Your task to perform on an android device: open app "Flipkart Online Shopping App" Image 0: 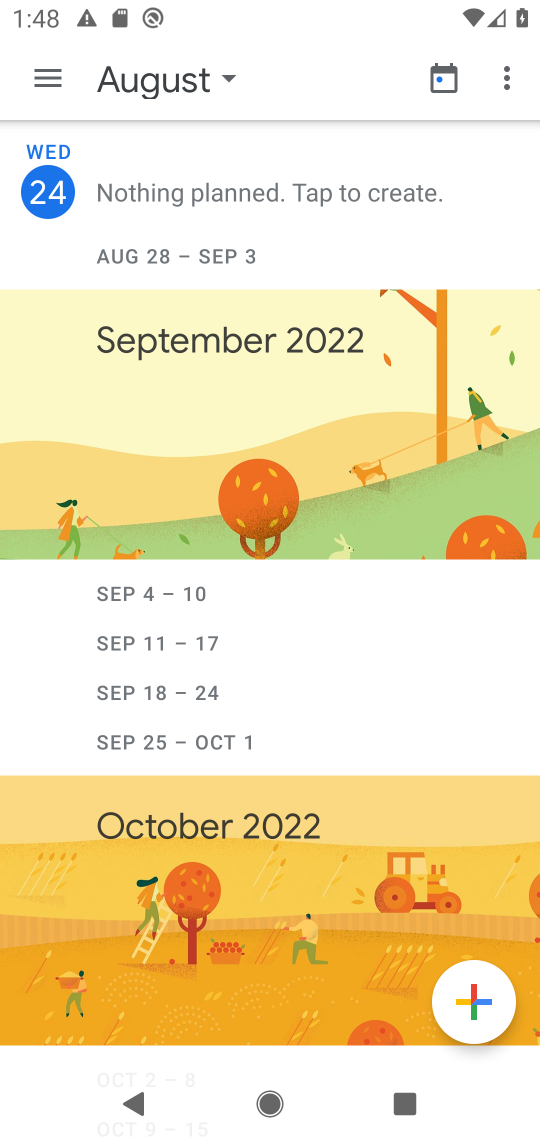
Step 0: press back button
Your task to perform on an android device: open app "Flipkart Online Shopping App" Image 1: 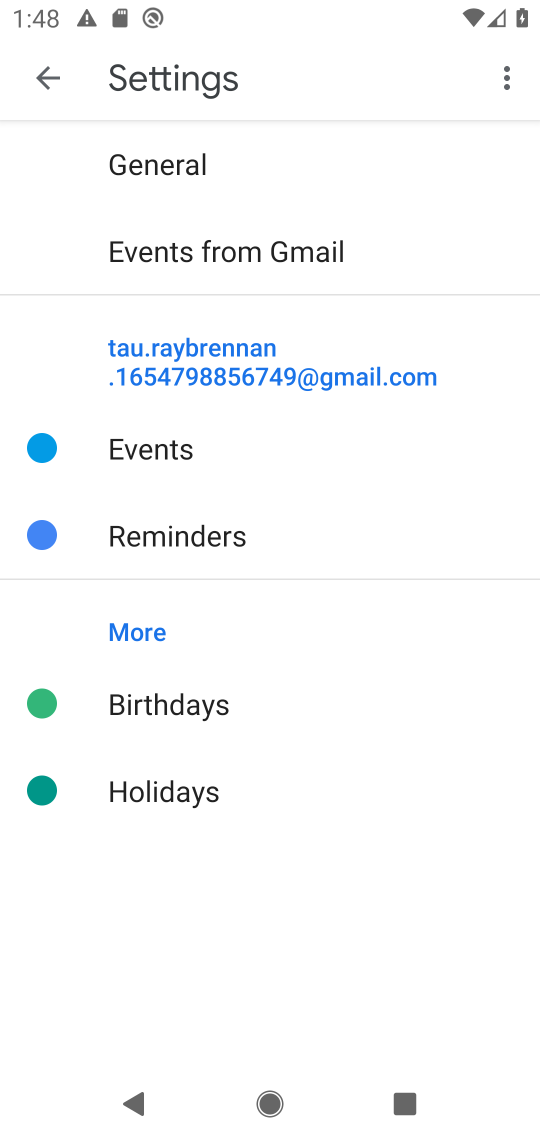
Step 1: press back button
Your task to perform on an android device: open app "Flipkart Online Shopping App" Image 2: 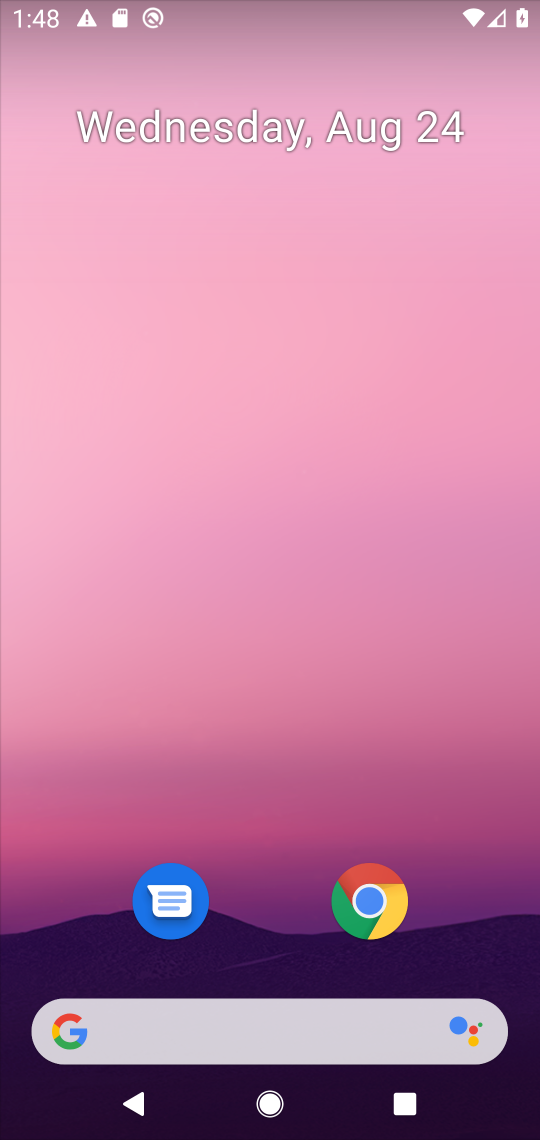
Step 2: drag from (270, 805) to (360, 19)
Your task to perform on an android device: open app "Flipkart Online Shopping App" Image 3: 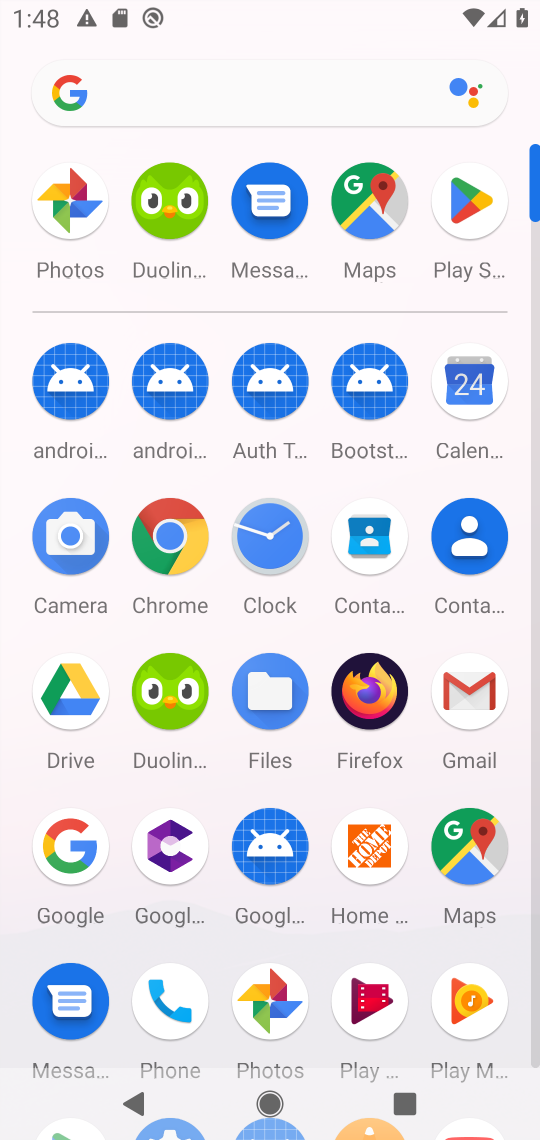
Step 3: click (471, 218)
Your task to perform on an android device: open app "Flipkart Online Shopping App" Image 4: 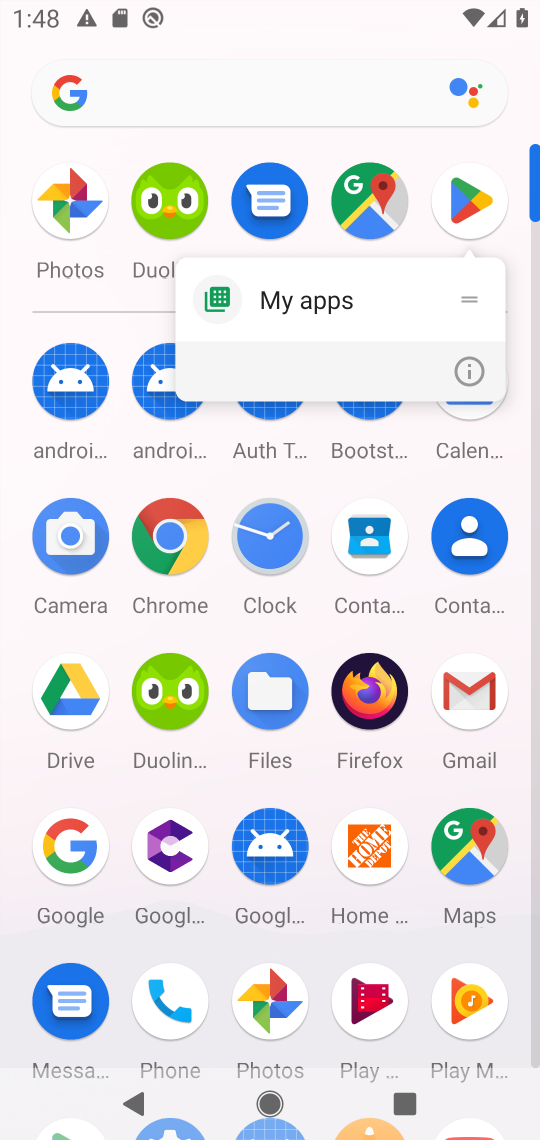
Step 4: click (479, 209)
Your task to perform on an android device: open app "Flipkart Online Shopping App" Image 5: 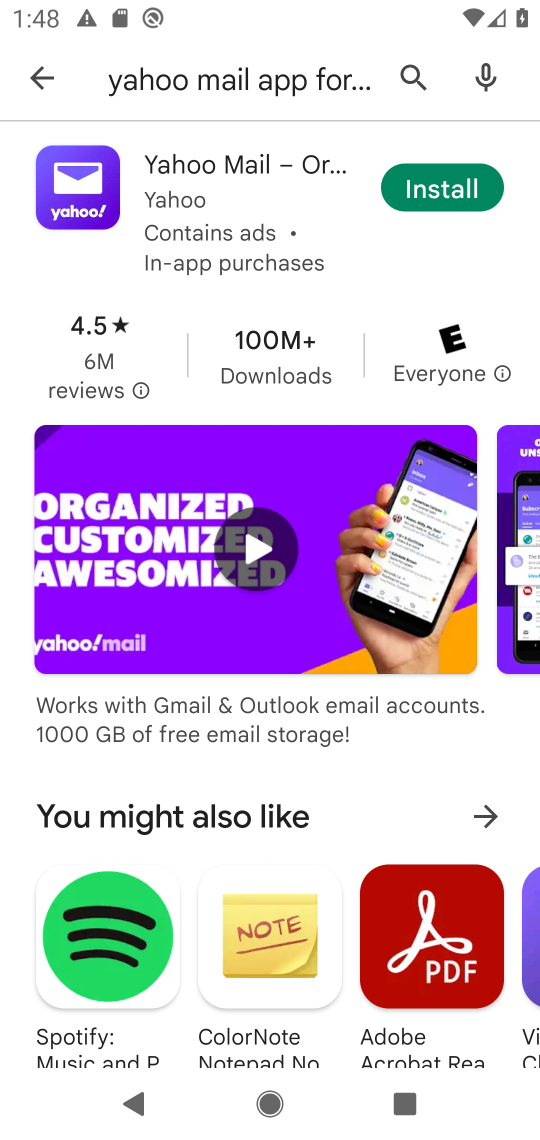
Step 5: click (415, 105)
Your task to perform on an android device: open app "Flipkart Online Shopping App" Image 6: 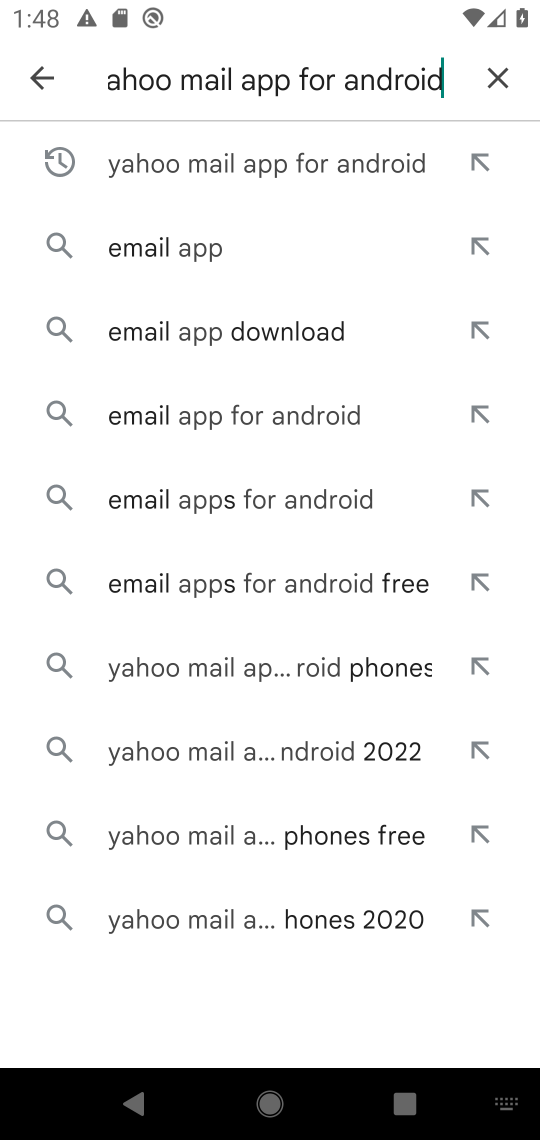
Step 6: click (498, 86)
Your task to perform on an android device: open app "Flipkart Online Shopping App" Image 7: 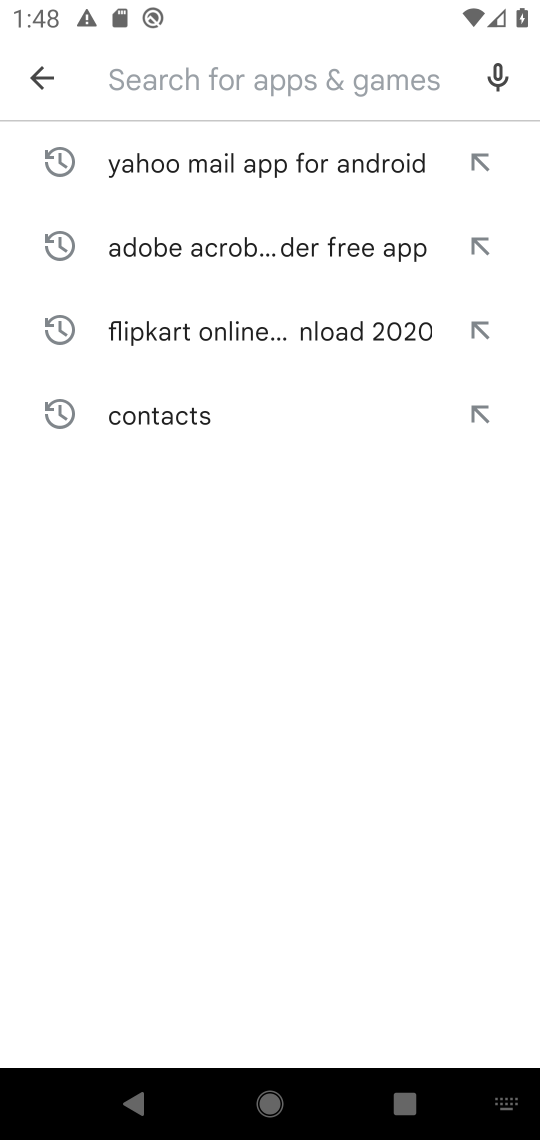
Step 7: type "flipkart"
Your task to perform on an android device: open app "Flipkart Online Shopping App" Image 8: 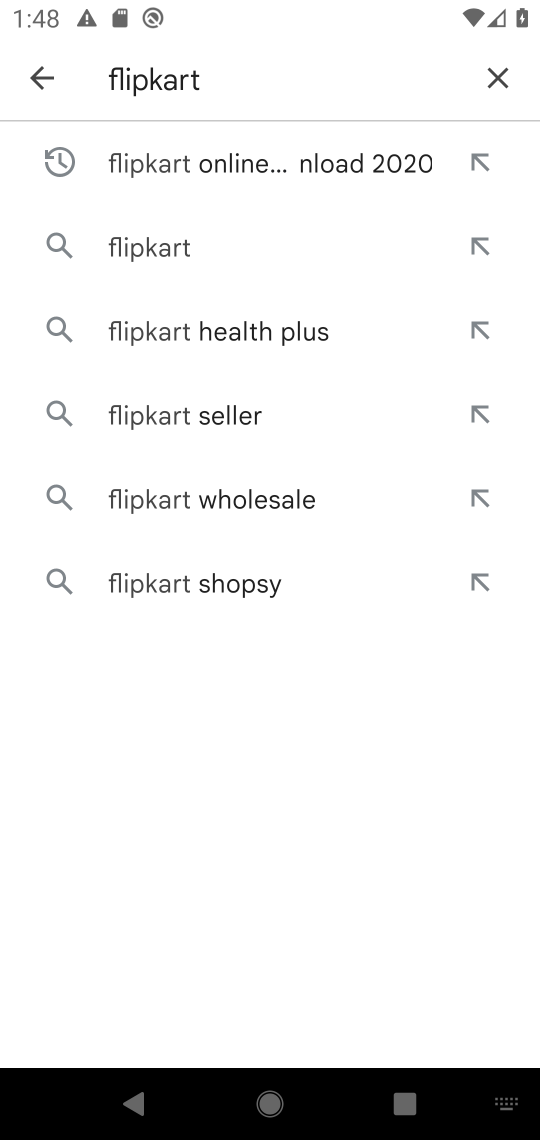
Step 8: click (296, 187)
Your task to perform on an android device: open app "Flipkart Online Shopping App" Image 9: 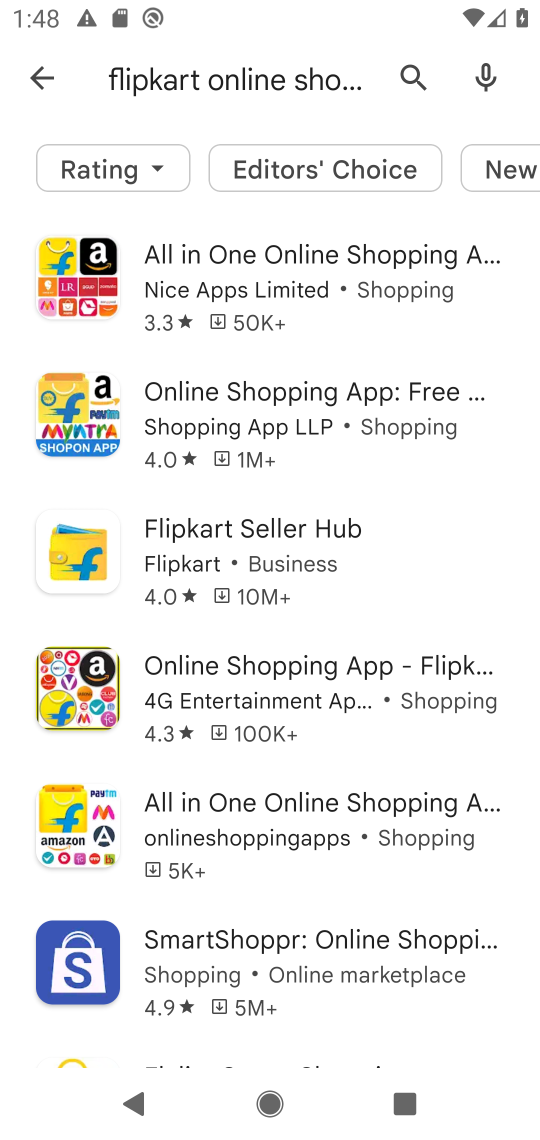
Step 9: task complete